Your task to perform on an android device: turn off data saver in the chrome app Image 0: 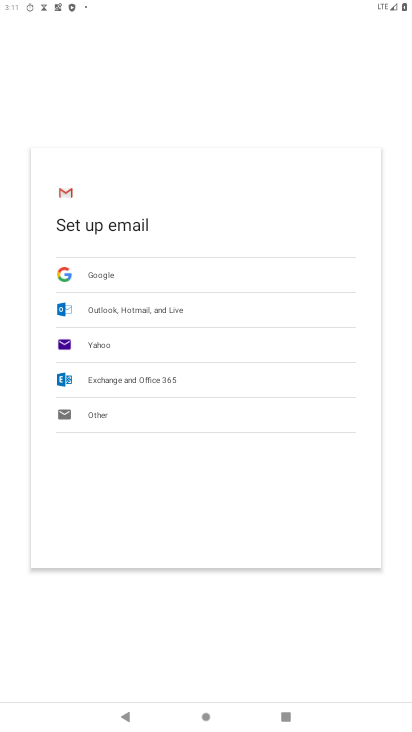
Step 0: press home button
Your task to perform on an android device: turn off data saver in the chrome app Image 1: 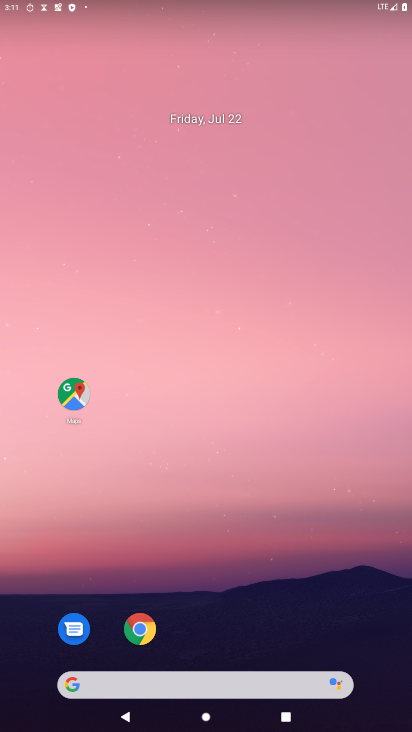
Step 1: drag from (260, 701) to (220, 0)
Your task to perform on an android device: turn off data saver in the chrome app Image 2: 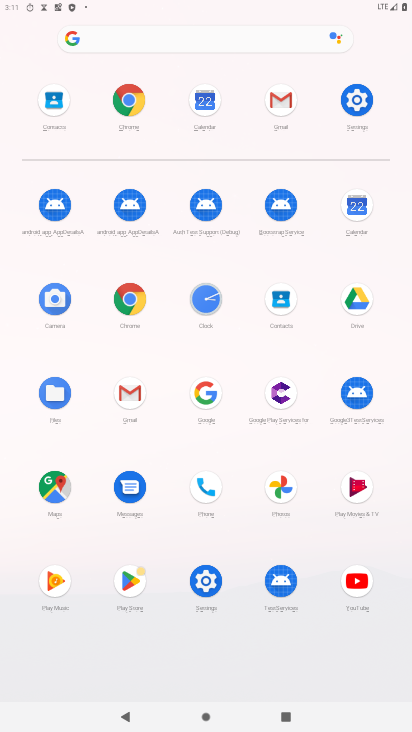
Step 2: click (121, 305)
Your task to perform on an android device: turn off data saver in the chrome app Image 3: 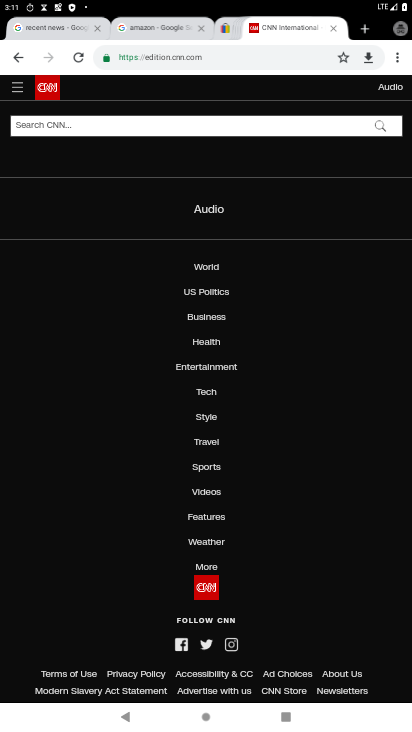
Step 3: drag from (403, 59) to (274, 383)
Your task to perform on an android device: turn off data saver in the chrome app Image 4: 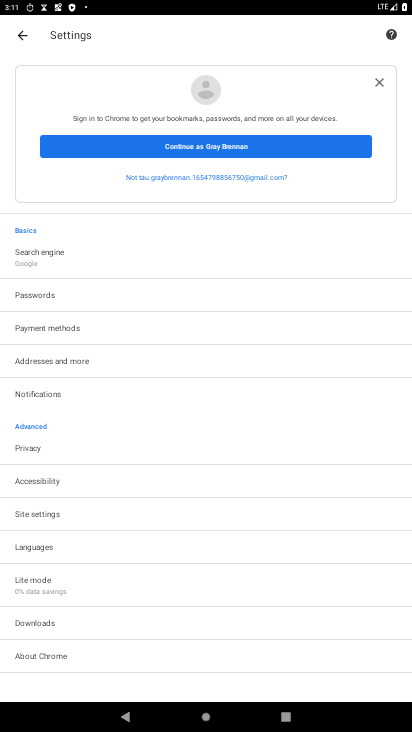
Step 4: click (62, 586)
Your task to perform on an android device: turn off data saver in the chrome app Image 5: 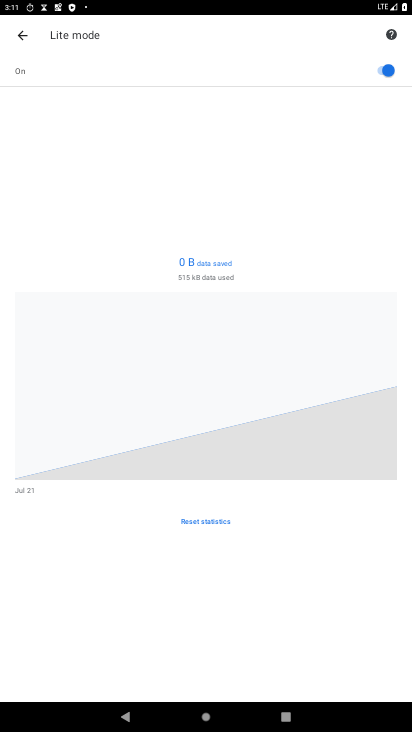
Step 5: click (379, 70)
Your task to perform on an android device: turn off data saver in the chrome app Image 6: 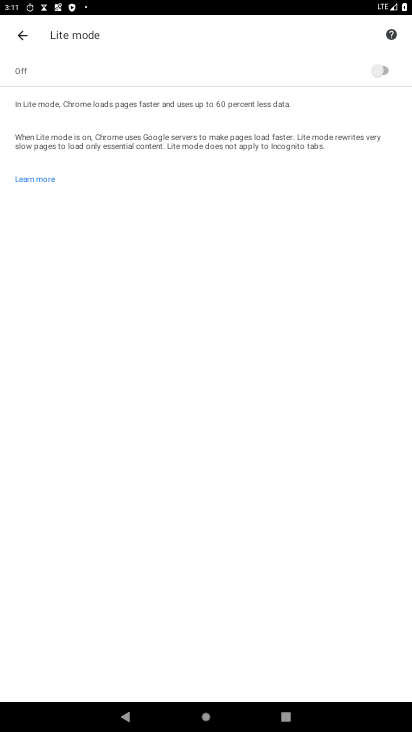
Step 6: task complete